Your task to perform on an android device: Is it going to rain tomorrow? Image 0: 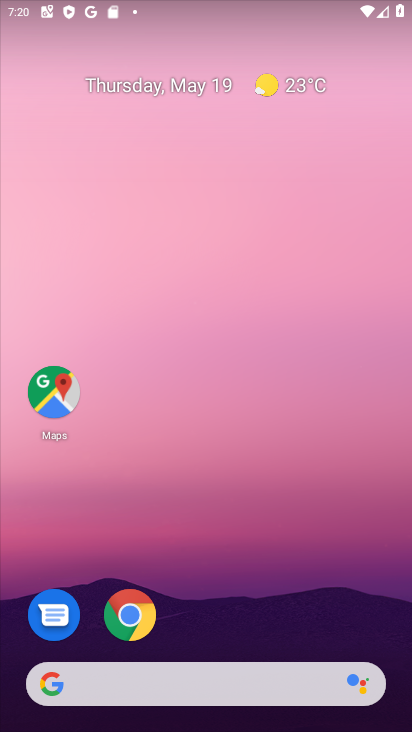
Step 0: drag from (365, 615) to (340, 47)
Your task to perform on an android device: Is it going to rain tomorrow? Image 1: 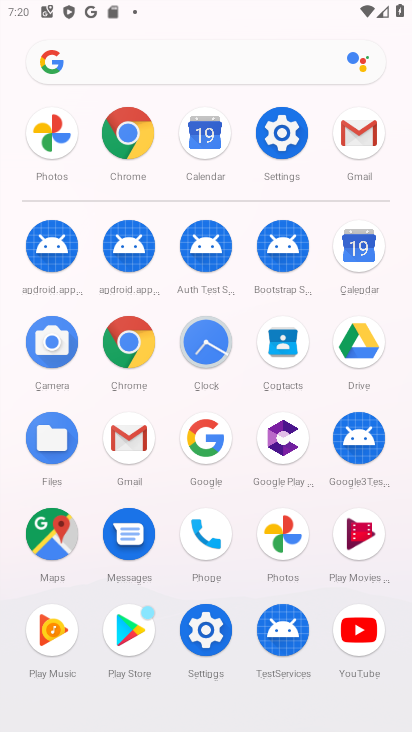
Step 1: click (209, 466)
Your task to perform on an android device: Is it going to rain tomorrow? Image 2: 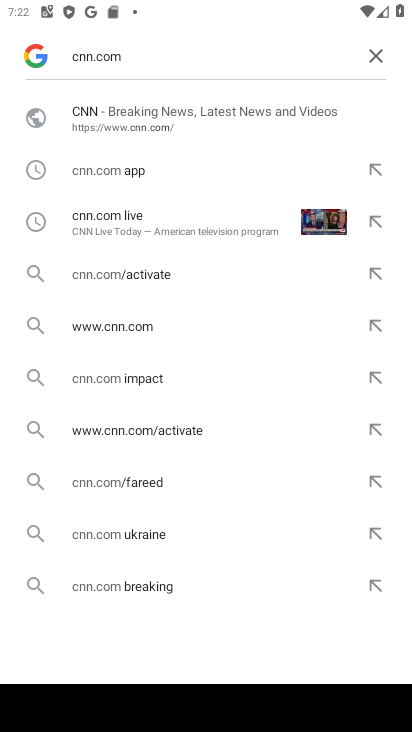
Step 2: drag from (198, 594) to (295, 140)
Your task to perform on an android device: Is it going to rain tomorrow? Image 3: 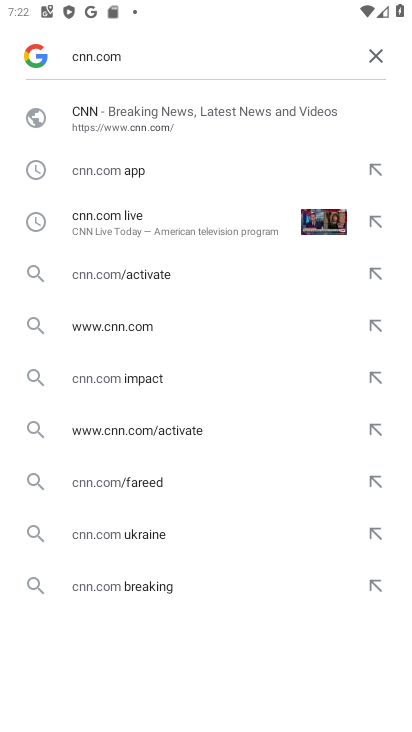
Step 3: click (374, 54)
Your task to perform on an android device: Is it going to rain tomorrow? Image 4: 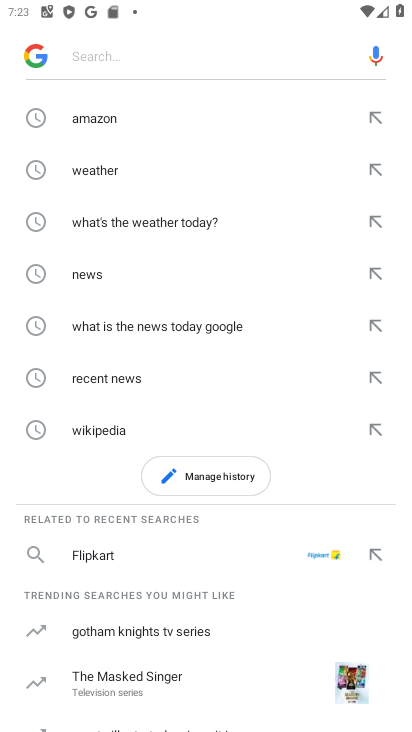
Step 4: type "Is it going to rain tomorrow?"
Your task to perform on an android device: Is it going to rain tomorrow? Image 5: 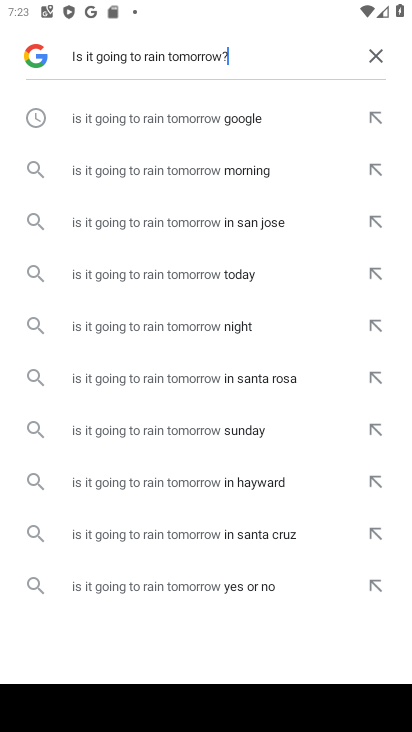
Step 5: click (202, 128)
Your task to perform on an android device: Is it going to rain tomorrow? Image 6: 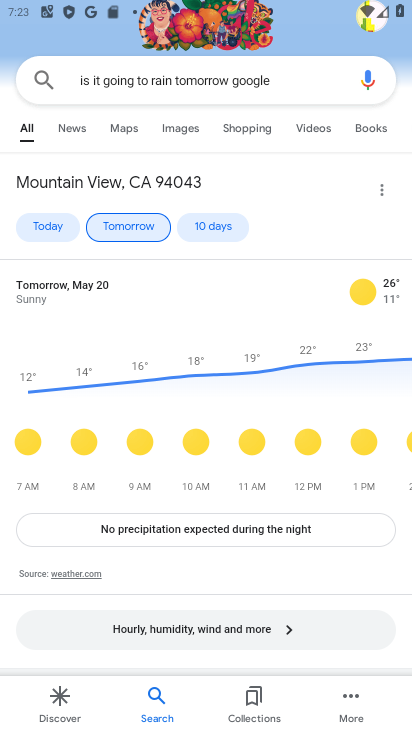
Step 6: task complete